Your task to perform on an android device: Do I have any events today? Image 0: 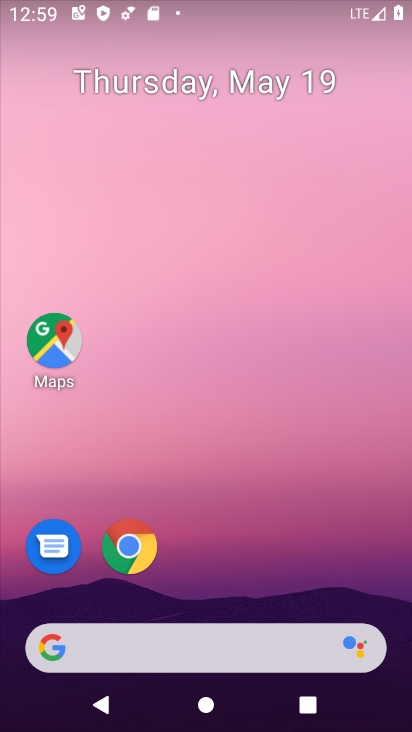
Step 0: click (184, 94)
Your task to perform on an android device: Do I have any events today? Image 1: 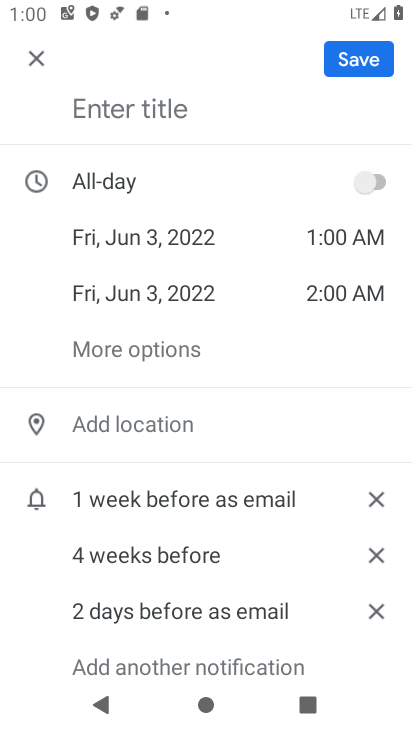
Step 1: click (33, 57)
Your task to perform on an android device: Do I have any events today? Image 2: 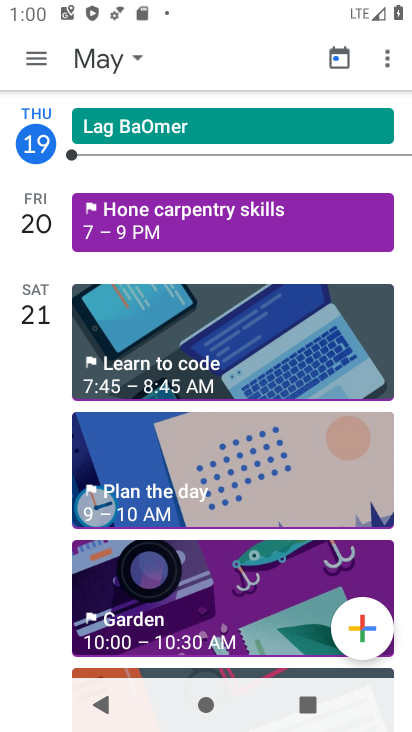
Step 2: drag from (202, 143) to (254, 361)
Your task to perform on an android device: Do I have any events today? Image 3: 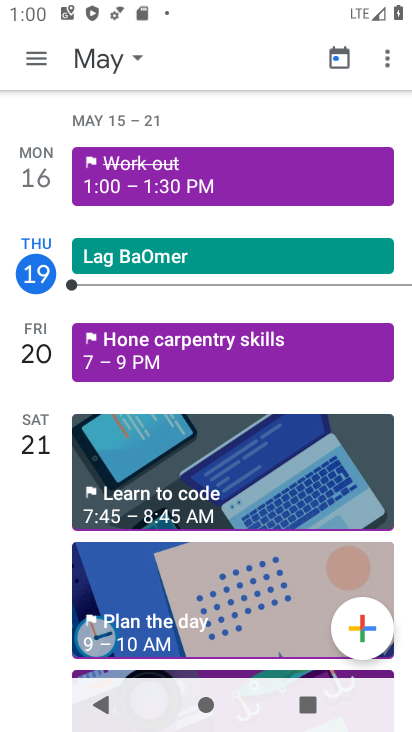
Step 3: click (104, 55)
Your task to perform on an android device: Do I have any events today? Image 4: 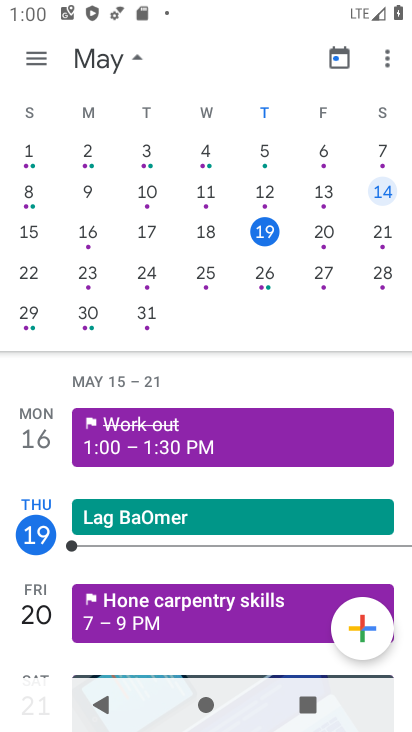
Step 4: click (260, 247)
Your task to perform on an android device: Do I have any events today? Image 5: 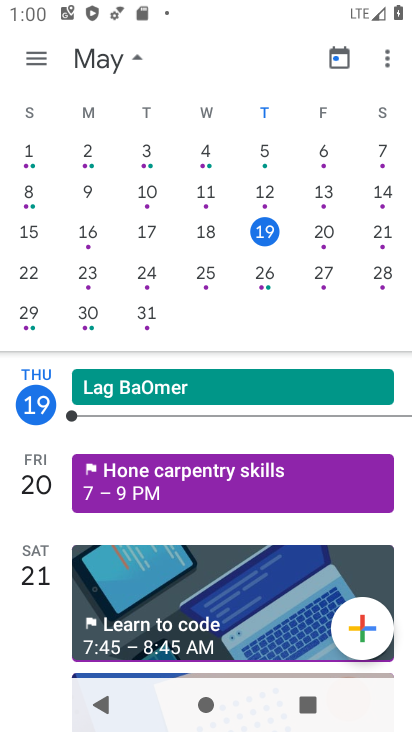
Step 5: task complete